Your task to perform on an android device: What's on my calendar today? Image 0: 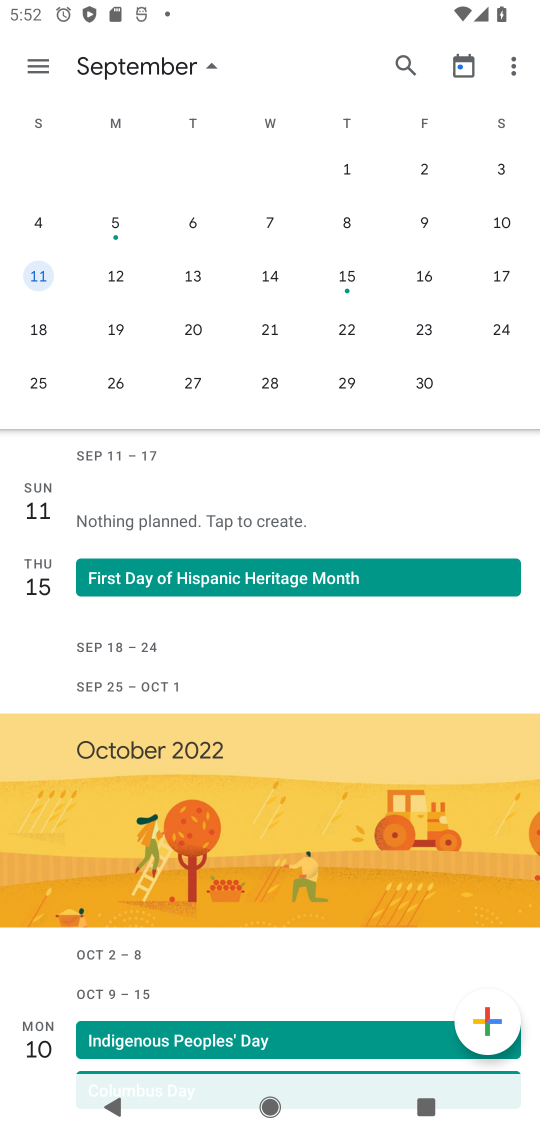
Step 0: drag from (40, 231) to (532, 294)
Your task to perform on an android device: What's on my calendar today? Image 1: 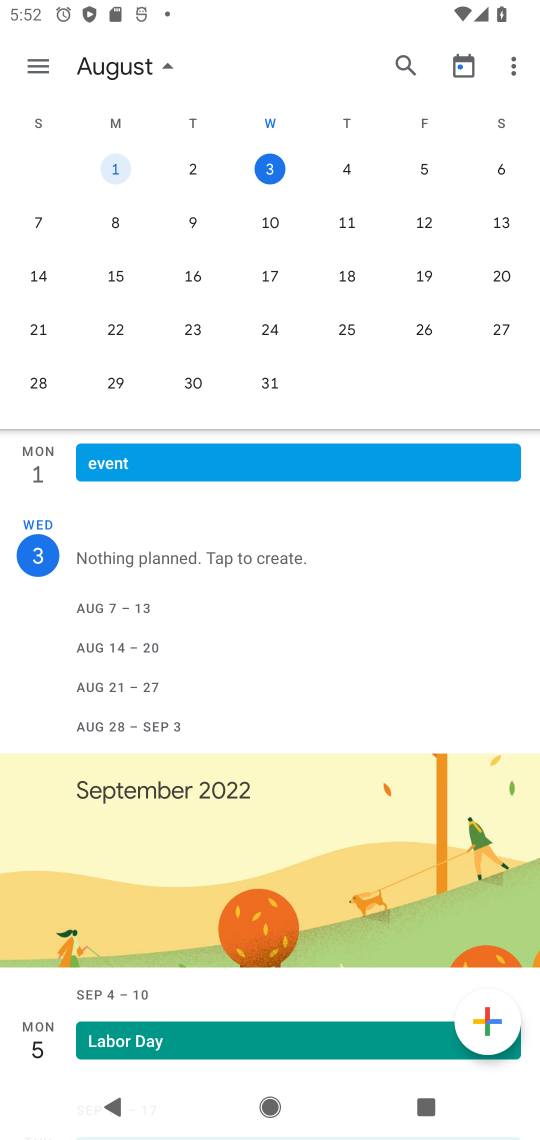
Step 1: click (274, 170)
Your task to perform on an android device: What's on my calendar today? Image 2: 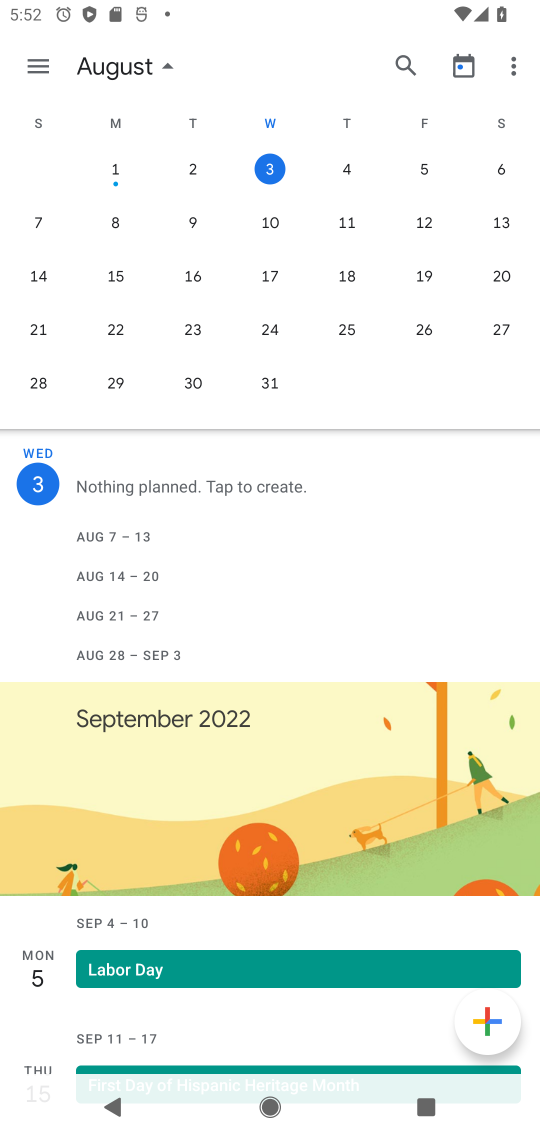
Step 2: task complete